Your task to perform on an android device: Open maps Image 0: 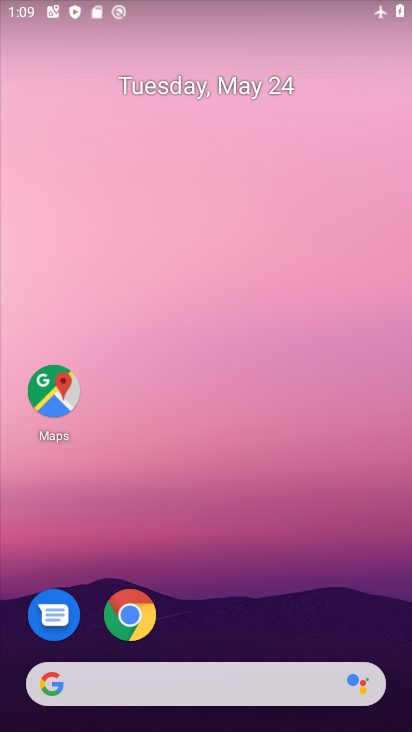
Step 0: click (60, 375)
Your task to perform on an android device: Open maps Image 1: 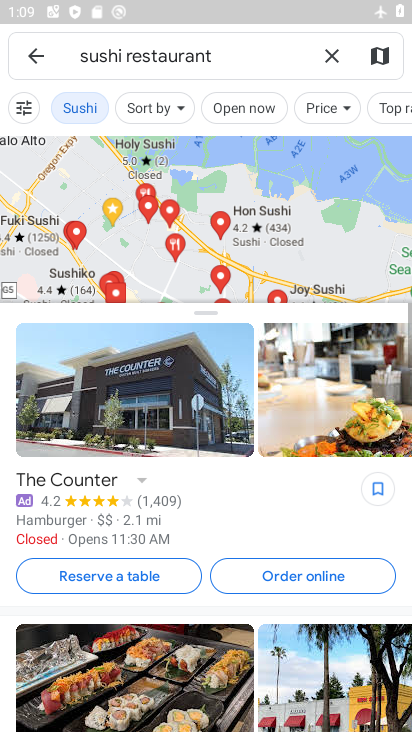
Step 1: task complete